Your task to perform on an android device: Open Google Chrome and open the bookmarks view Image 0: 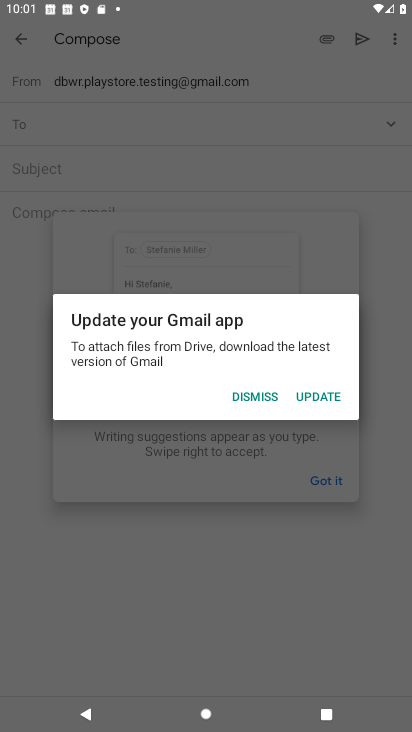
Step 0: press home button
Your task to perform on an android device: Open Google Chrome and open the bookmarks view Image 1: 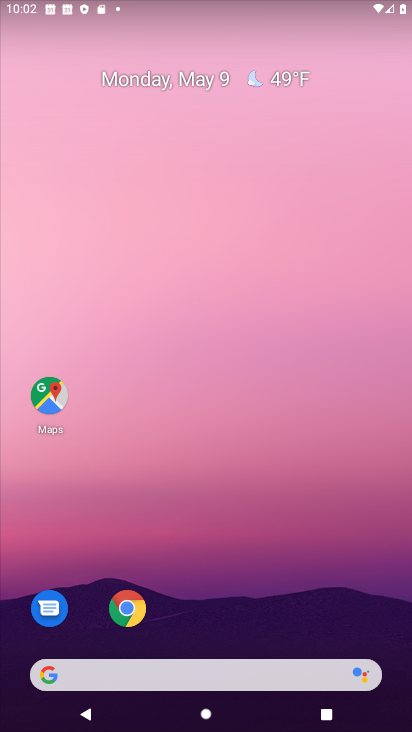
Step 1: click (121, 617)
Your task to perform on an android device: Open Google Chrome and open the bookmarks view Image 2: 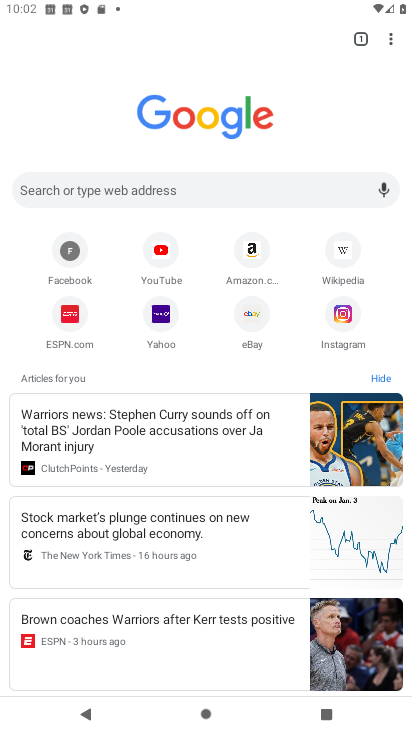
Step 2: task complete